Your task to perform on an android device: toggle wifi Image 0: 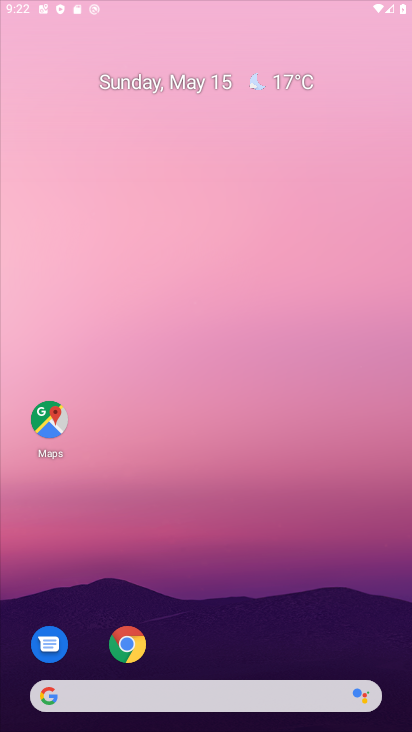
Step 0: drag from (255, 682) to (308, 142)
Your task to perform on an android device: toggle wifi Image 1: 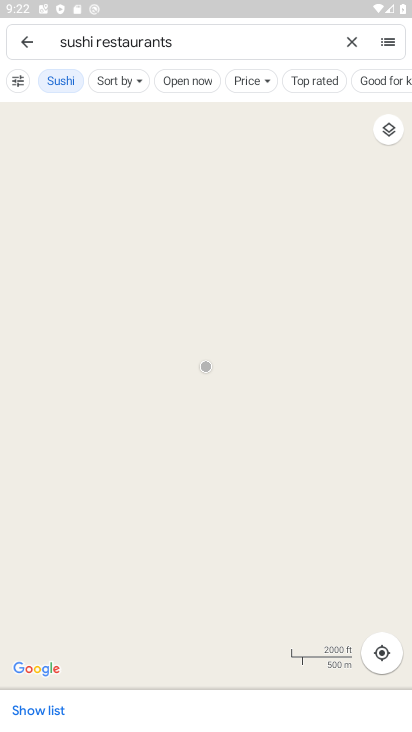
Step 1: press home button
Your task to perform on an android device: toggle wifi Image 2: 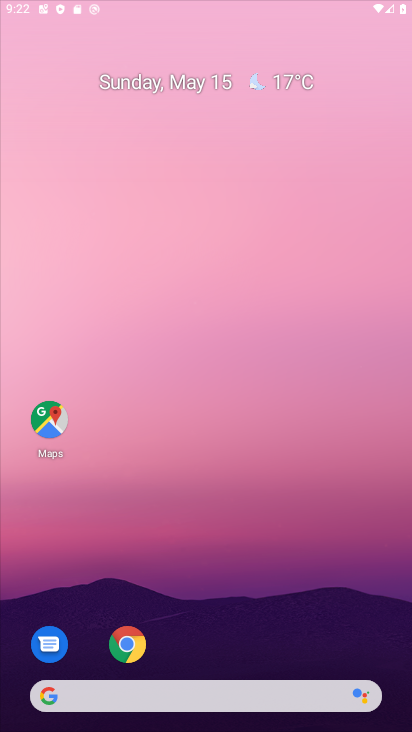
Step 2: drag from (273, 686) to (285, 7)
Your task to perform on an android device: toggle wifi Image 3: 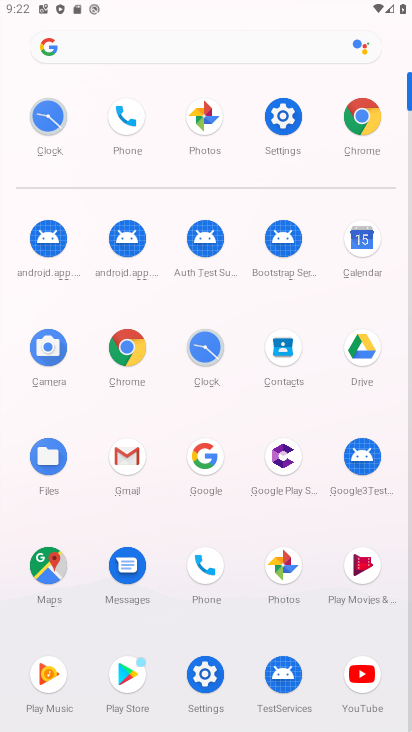
Step 3: click (275, 134)
Your task to perform on an android device: toggle wifi Image 4: 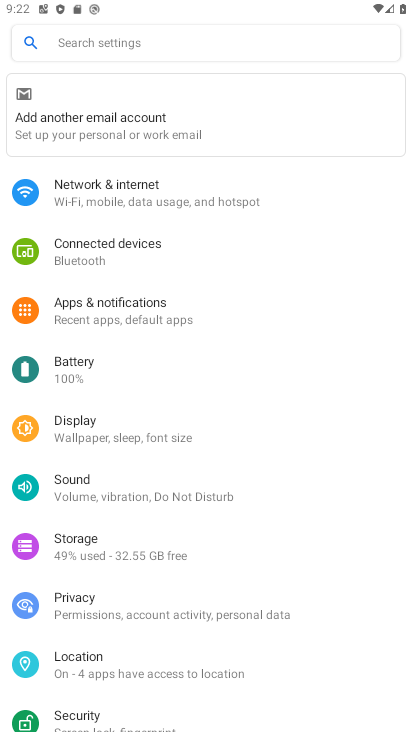
Step 4: click (152, 217)
Your task to perform on an android device: toggle wifi Image 5: 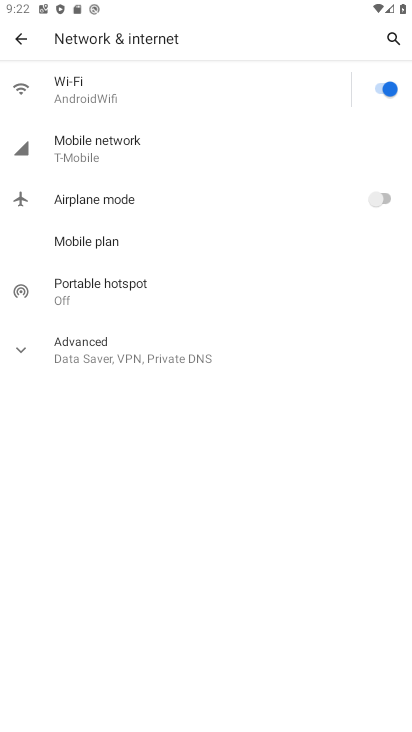
Step 5: click (71, 101)
Your task to perform on an android device: toggle wifi Image 6: 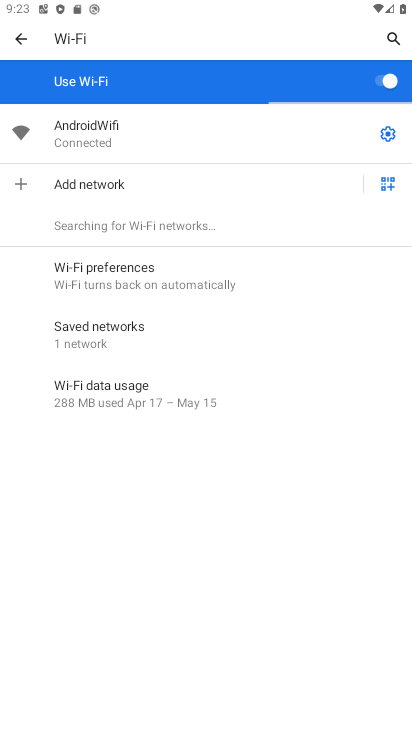
Step 6: task complete